Your task to perform on an android device: Open Google Maps and go to "Timeline" Image 0: 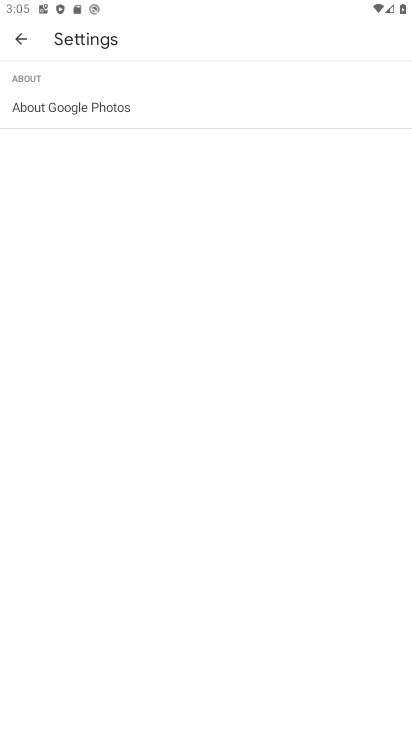
Step 0: press home button
Your task to perform on an android device: Open Google Maps and go to "Timeline" Image 1: 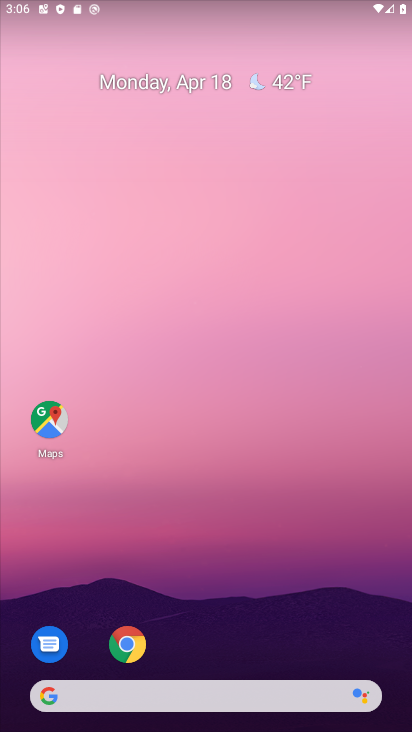
Step 1: click (44, 422)
Your task to perform on an android device: Open Google Maps and go to "Timeline" Image 2: 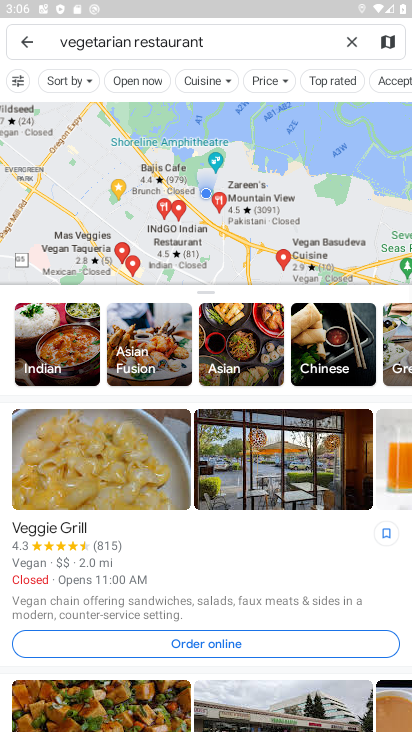
Step 2: click (34, 34)
Your task to perform on an android device: Open Google Maps and go to "Timeline" Image 3: 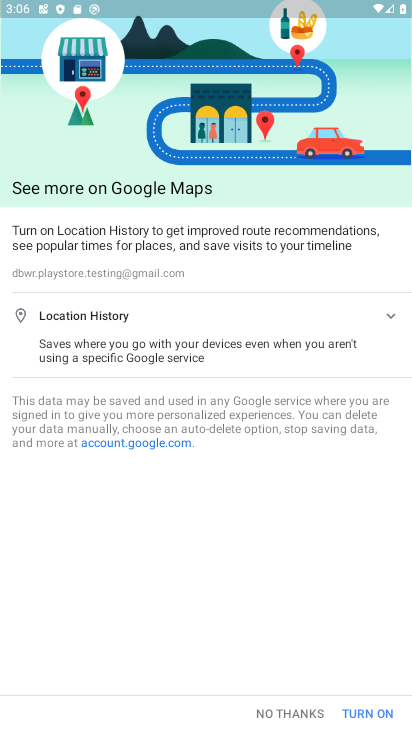
Step 3: click (280, 708)
Your task to perform on an android device: Open Google Maps and go to "Timeline" Image 4: 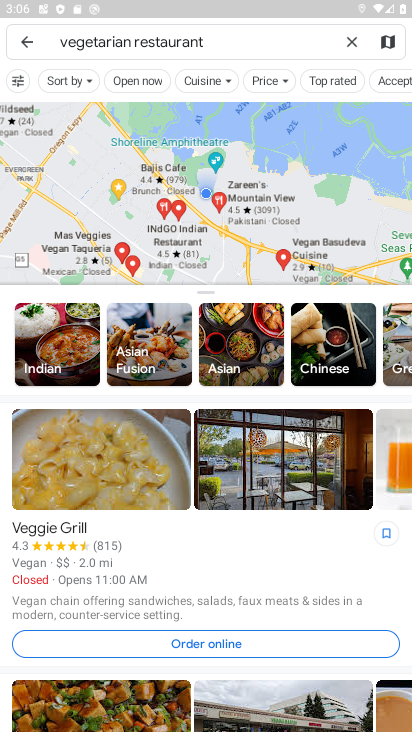
Step 4: click (22, 37)
Your task to perform on an android device: Open Google Maps and go to "Timeline" Image 5: 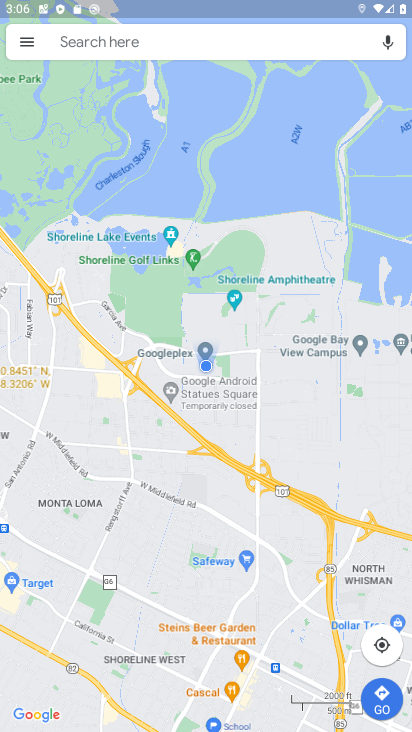
Step 5: click (22, 37)
Your task to perform on an android device: Open Google Maps and go to "Timeline" Image 6: 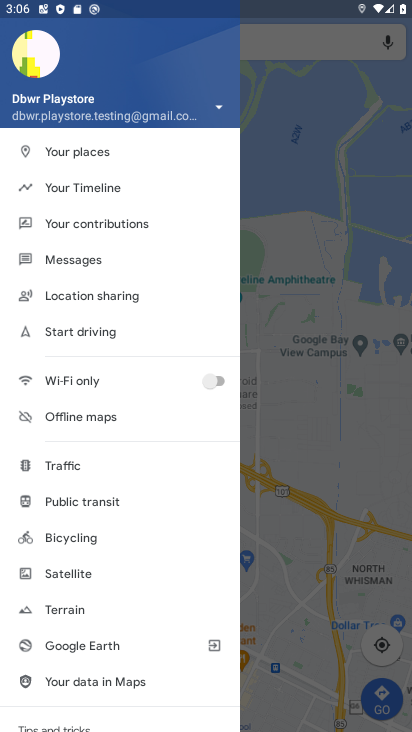
Step 6: click (64, 193)
Your task to perform on an android device: Open Google Maps and go to "Timeline" Image 7: 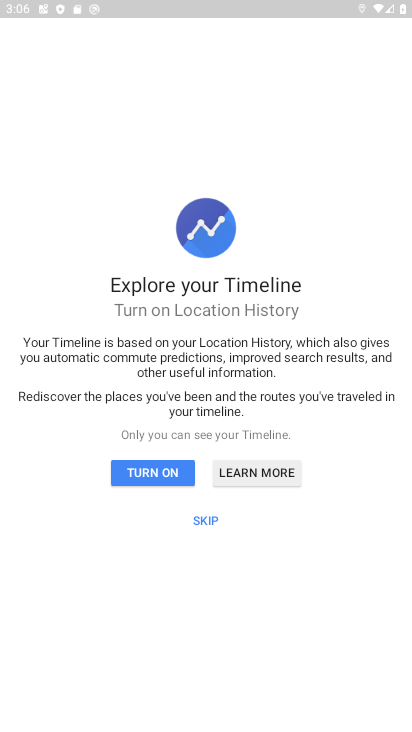
Step 7: click (217, 517)
Your task to perform on an android device: Open Google Maps and go to "Timeline" Image 8: 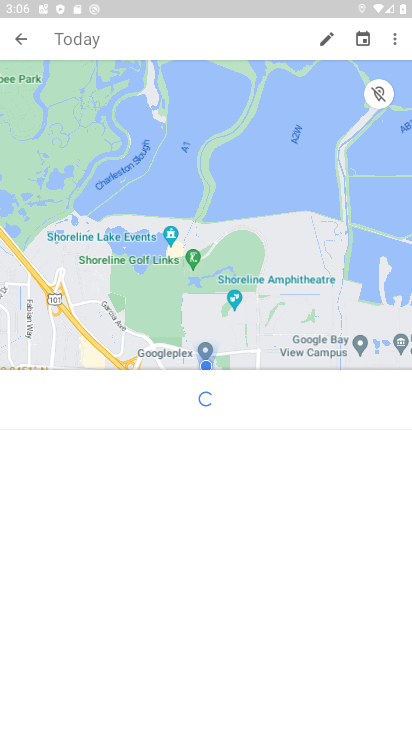
Step 8: click (217, 517)
Your task to perform on an android device: Open Google Maps and go to "Timeline" Image 9: 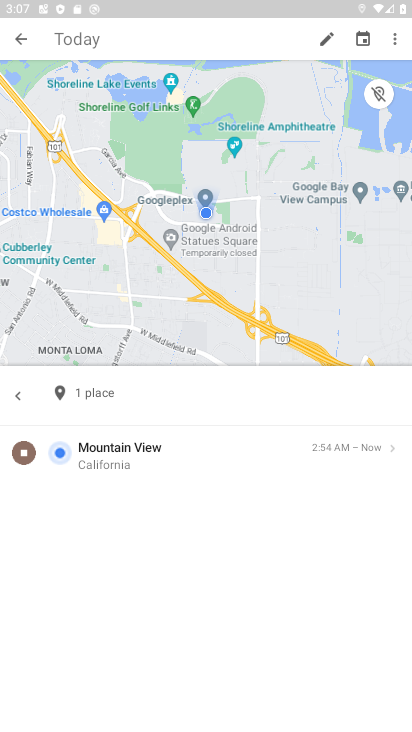
Step 9: task complete